Your task to perform on an android device: Open Yahoo.com Image 0: 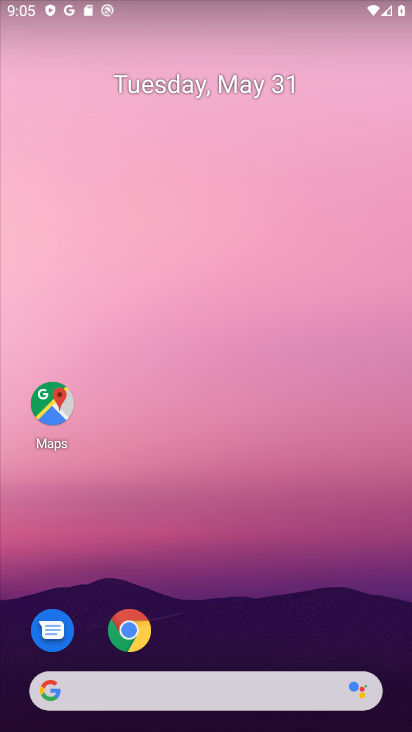
Step 0: click (112, 641)
Your task to perform on an android device: Open Yahoo.com Image 1: 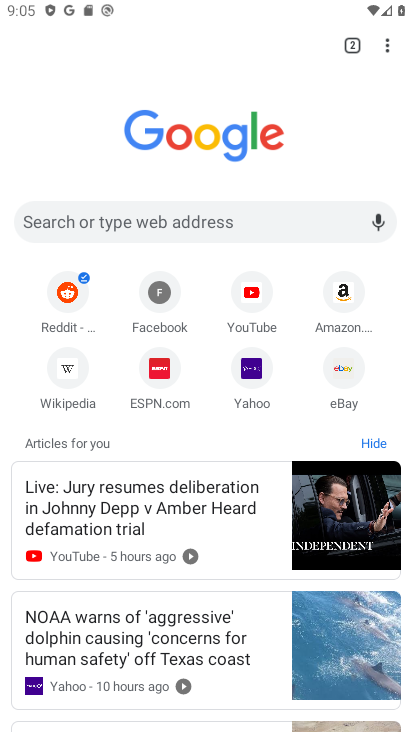
Step 1: click (255, 391)
Your task to perform on an android device: Open Yahoo.com Image 2: 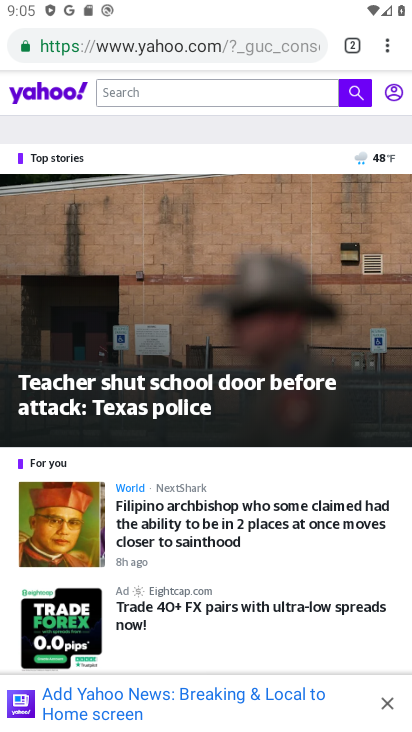
Step 2: task complete